Your task to perform on an android device: What's the weather? Image 0: 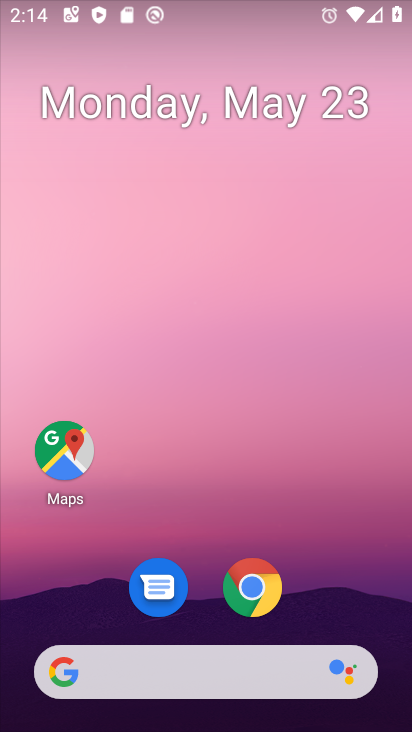
Step 0: click (247, 673)
Your task to perform on an android device: What's the weather? Image 1: 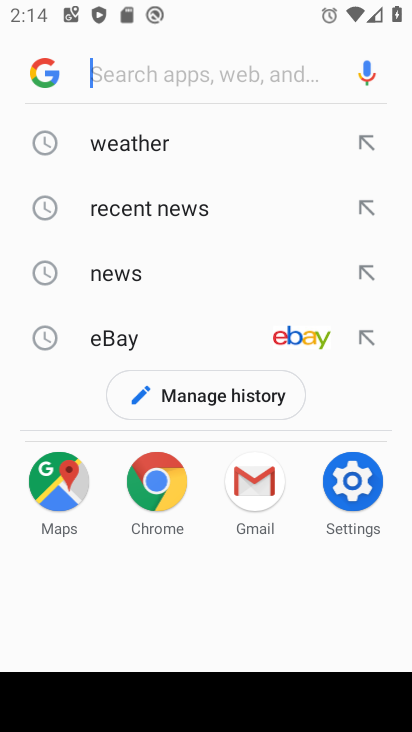
Step 1: click (178, 155)
Your task to perform on an android device: What's the weather? Image 2: 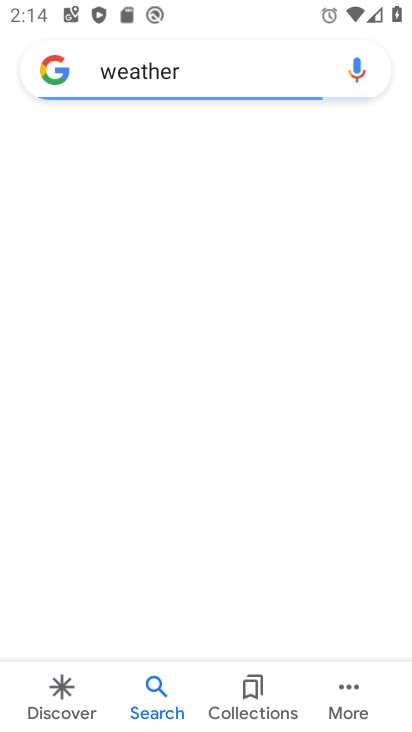
Step 2: task complete